Your task to perform on an android device: Open maps Image 0: 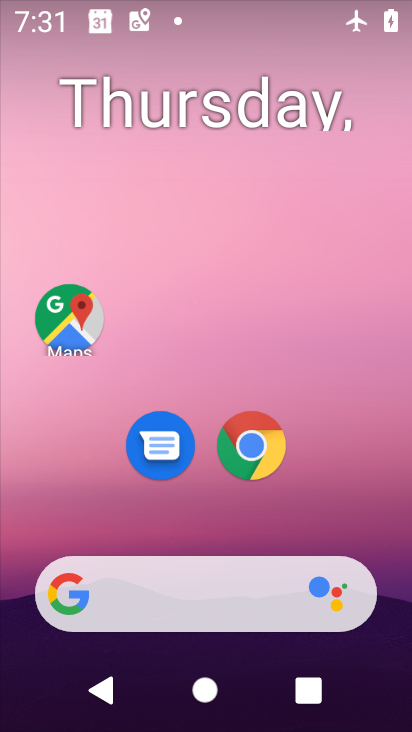
Step 0: drag from (390, 608) to (275, 43)
Your task to perform on an android device: Open maps Image 1: 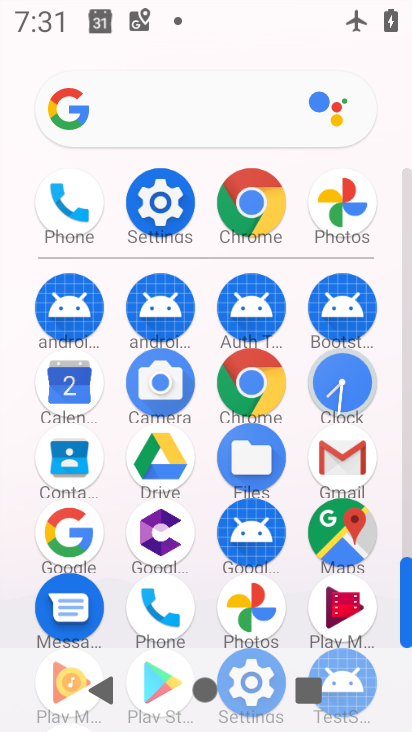
Step 1: click (314, 539)
Your task to perform on an android device: Open maps Image 2: 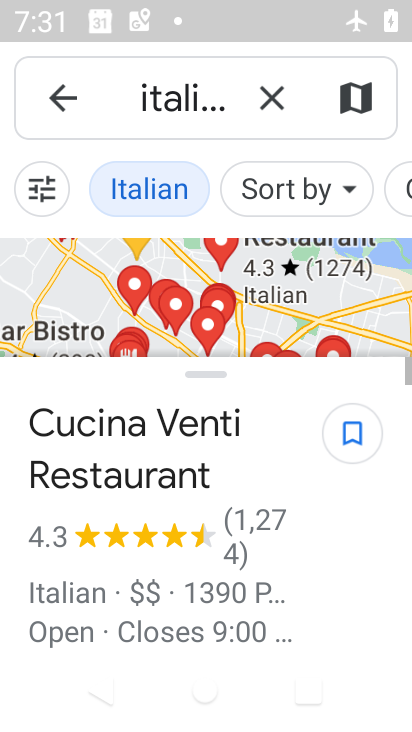
Step 2: click (282, 91)
Your task to perform on an android device: Open maps Image 3: 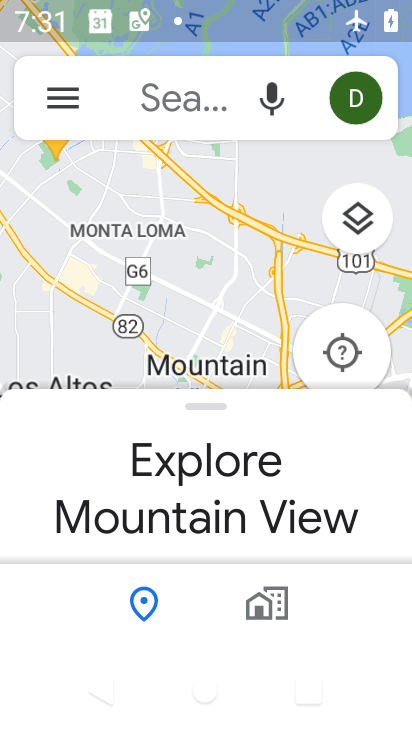
Step 3: task complete